Your task to perform on an android device: turn on javascript in the chrome app Image 0: 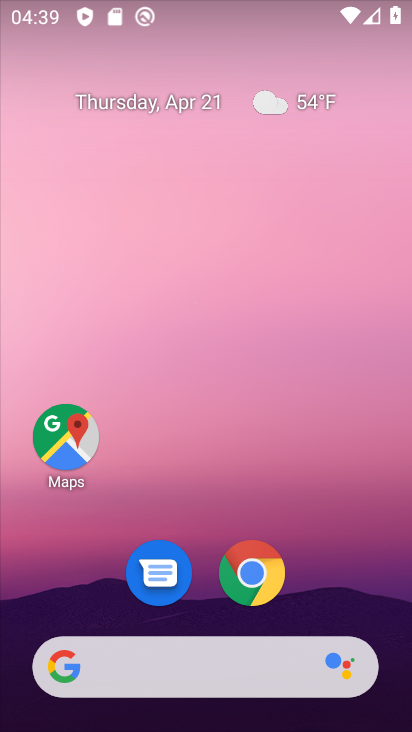
Step 0: click (254, 571)
Your task to perform on an android device: turn on javascript in the chrome app Image 1: 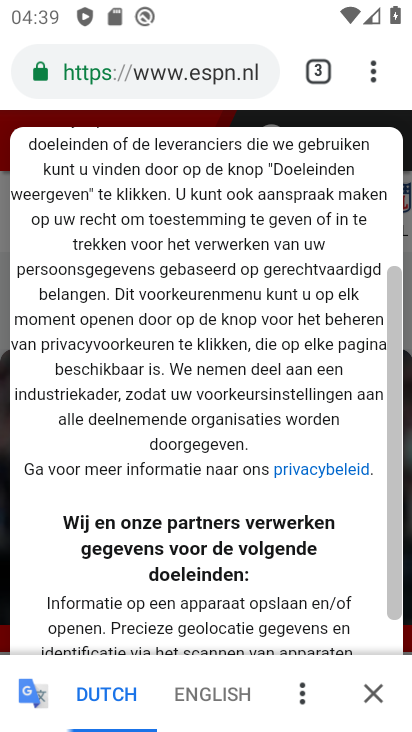
Step 1: click (373, 76)
Your task to perform on an android device: turn on javascript in the chrome app Image 2: 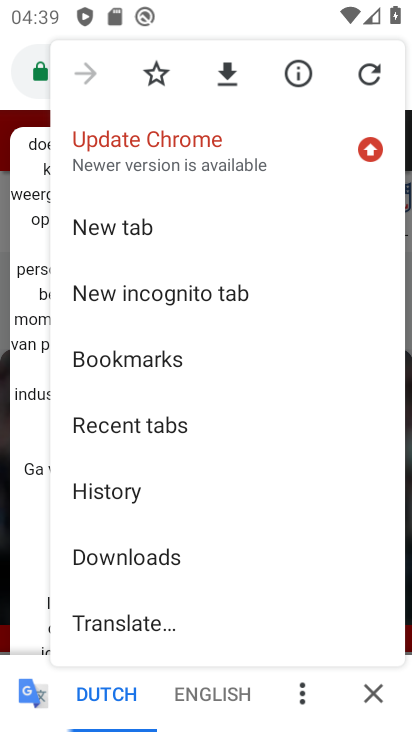
Step 2: drag from (238, 575) to (254, 312)
Your task to perform on an android device: turn on javascript in the chrome app Image 3: 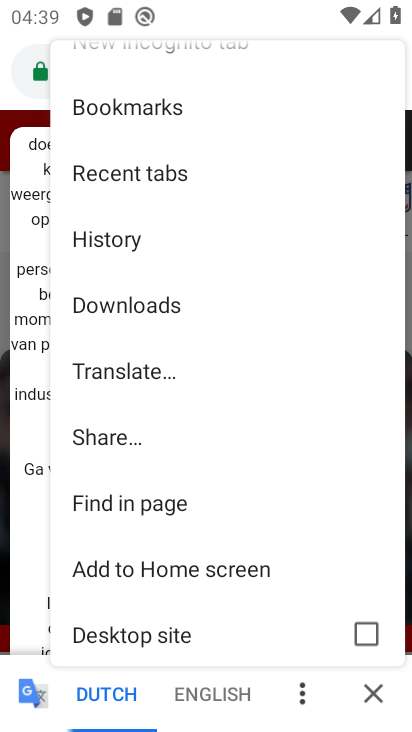
Step 3: drag from (290, 596) to (290, 313)
Your task to perform on an android device: turn on javascript in the chrome app Image 4: 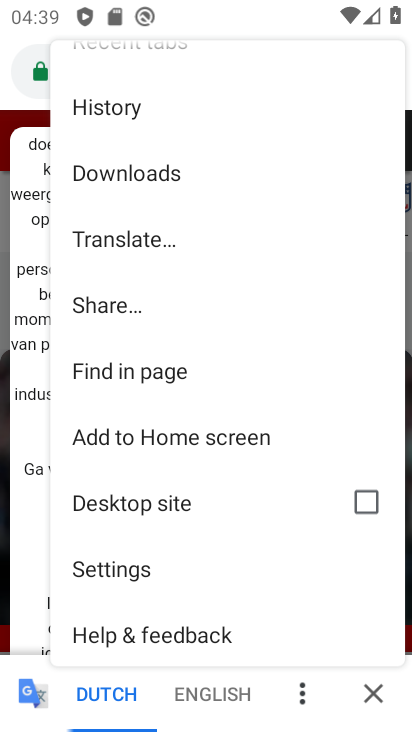
Step 4: click (105, 568)
Your task to perform on an android device: turn on javascript in the chrome app Image 5: 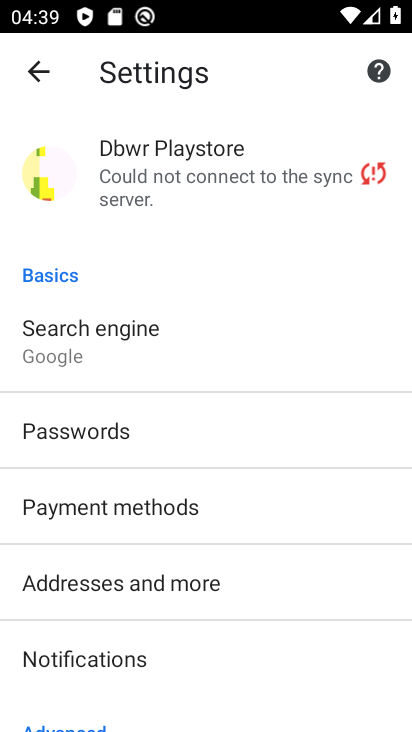
Step 5: drag from (261, 624) to (278, 352)
Your task to perform on an android device: turn on javascript in the chrome app Image 6: 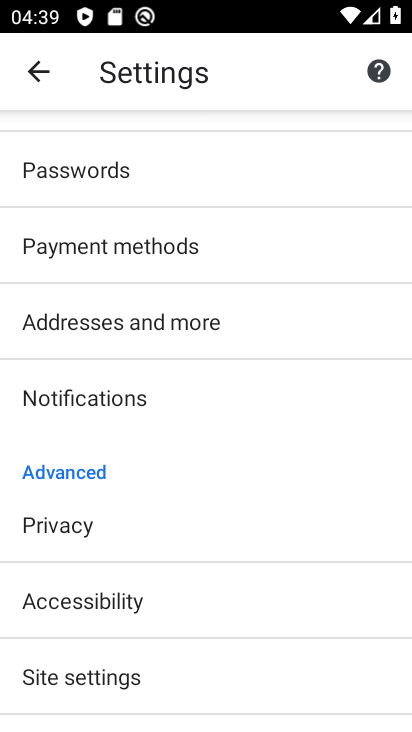
Step 6: drag from (241, 574) to (276, 302)
Your task to perform on an android device: turn on javascript in the chrome app Image 7: 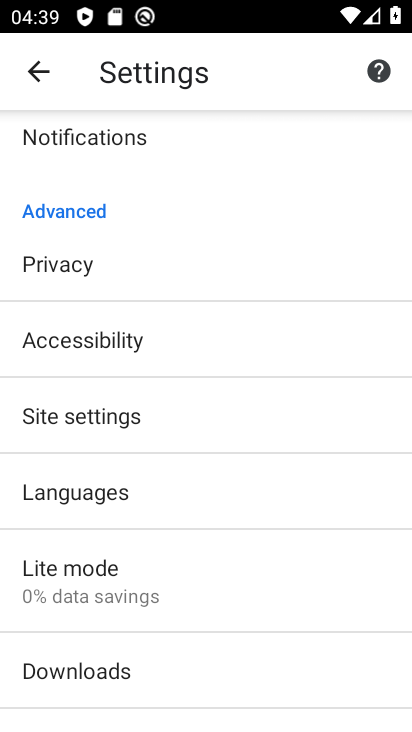
Step 7: click (58, 413)
Your task to perform on an android device: turn on javascript in the chrome app Image 8: 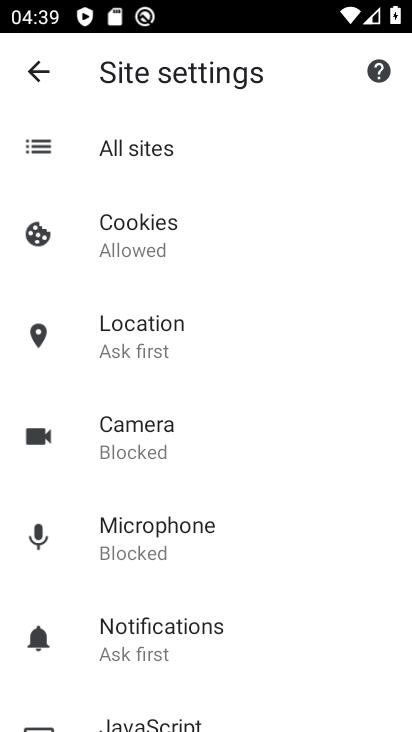
Step 8: drag from (325, 628) to (337, 305)
Your task to perform on an android device: turn on javascript in the chrome app Image 9: 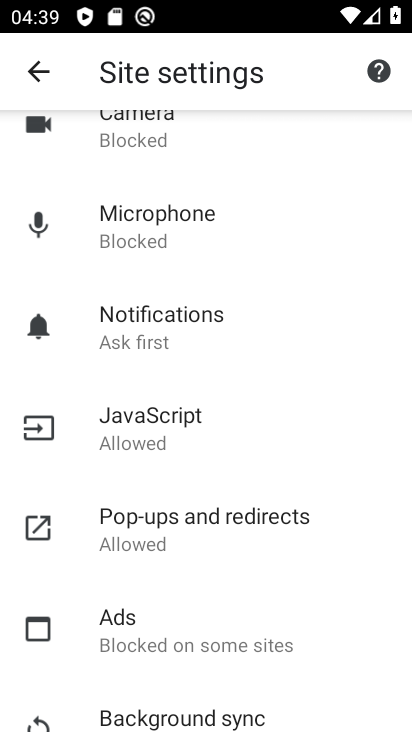
Step 9: click (113, 412)
Your task to perform on an android device: turn on javascript in the chrome app Image 10: 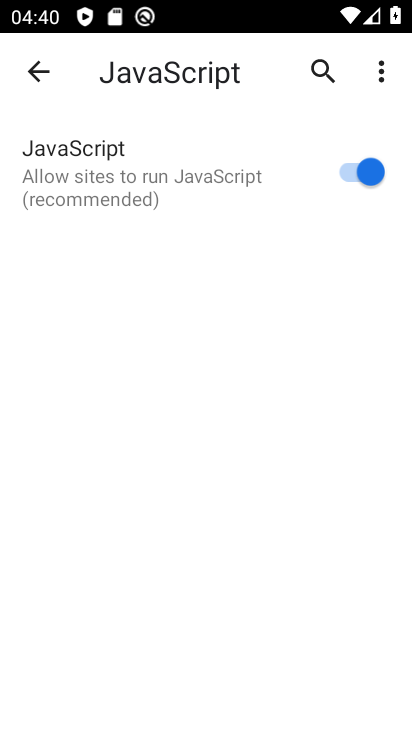
Step 10: task complete